Your task to perform on an android device: turn off notifications settings in the gmail app Image 0: 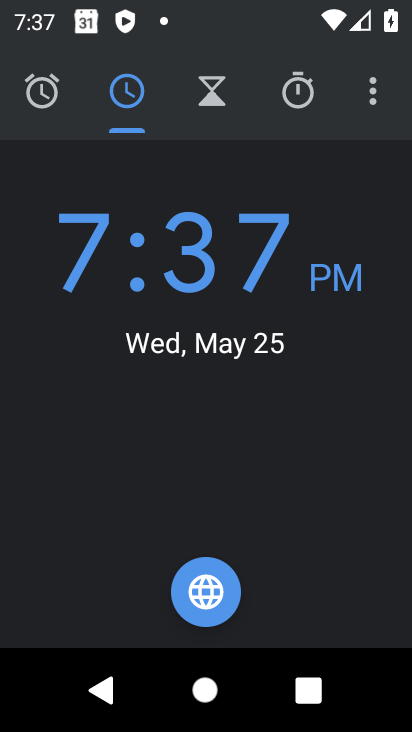
Step 0: press home button
Your task to perform on an android device: turn off notifications settings in the gmail app Image 1: 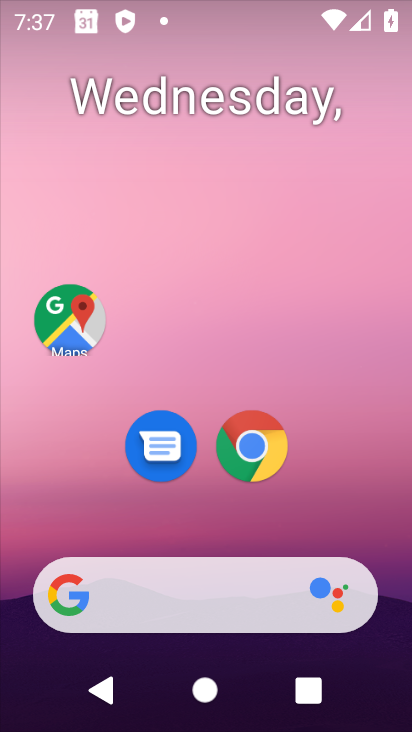
Step 1: drag from (384, 544) to (375, 33)
Your task to perform on an android device: turn off notifications settings in the gmail app Image 2: 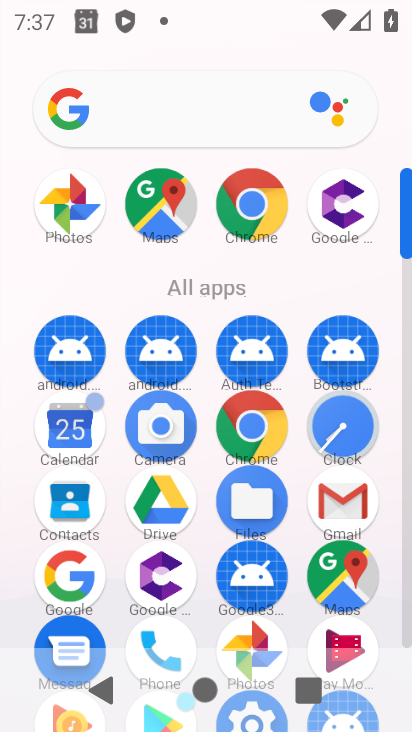
Step 2: click (362, 503)
Your task to perform on an android device: turn off notifications settings in the gmail app Image 3: 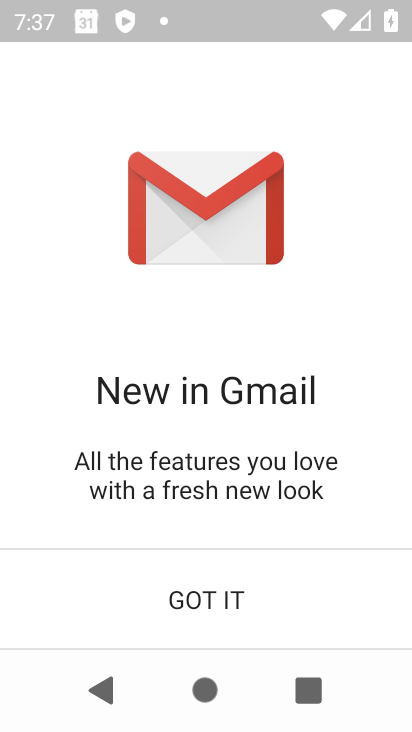
Step 3: click (222, 625)
Your task to perform on an android device: turn off notifications settings in the gmail app Image 4: 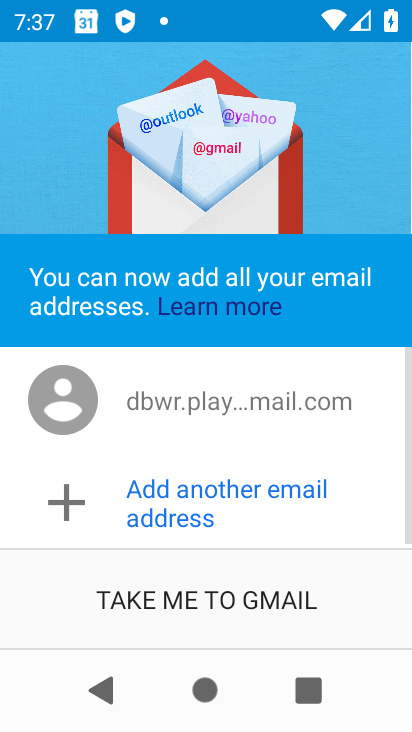
Step 4: click (222, 625)
Your task to perform on an android device: turn off notifications settings in the gmail app Image 5: 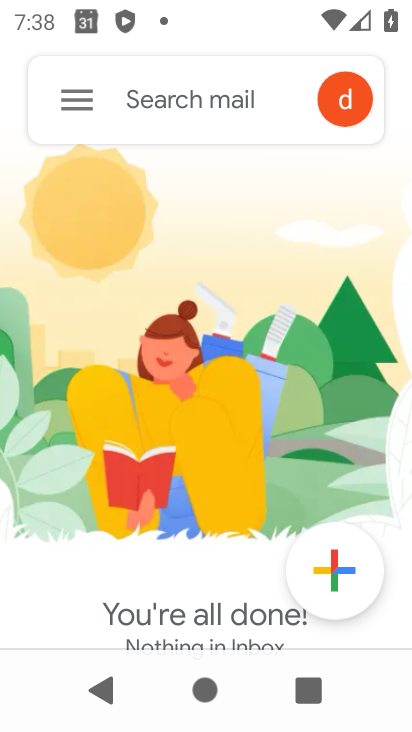
Step 5: click (66, 105)
Your task to perform on an android device: turn off notifications settings in the gmail app Image 6: 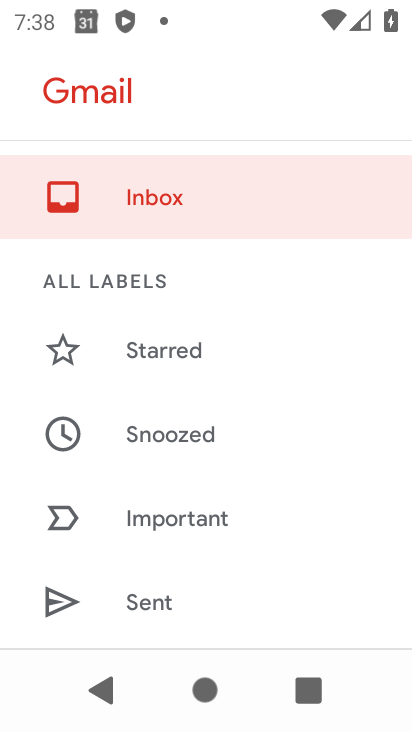
Step 6: drag from (186, 571) to (197, 164)
Your task to perform on an android device: turn off notifications settings in the gmail app Image 7: 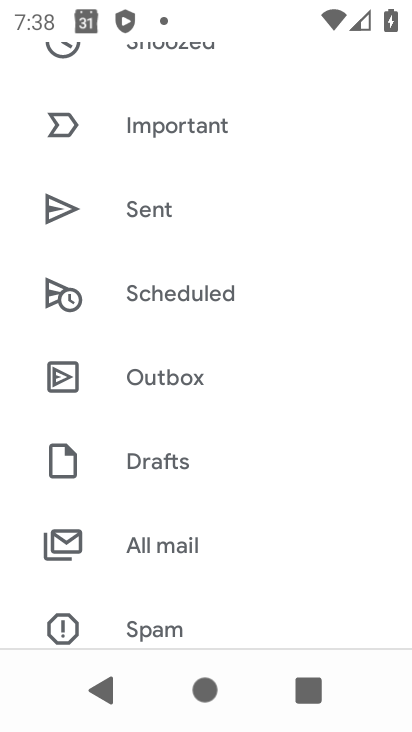
Step 7: drag from (226, 546) to (252, 104)
Your task to perform on an android device: turn off notifications settings in the gmail app Image 8: 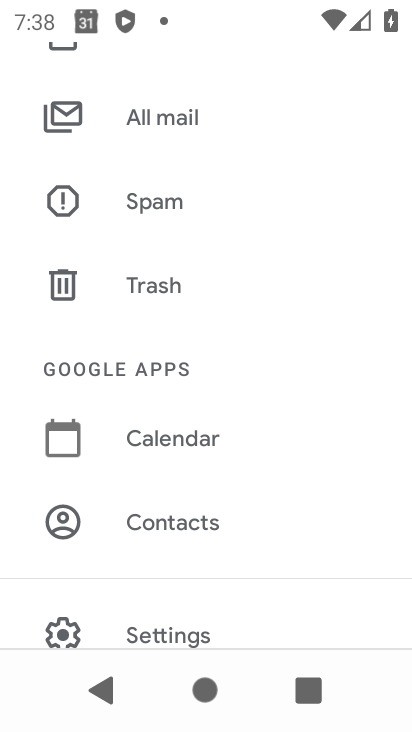
Step 8: click (171, 627)
Your task to perform on an android device: turn off notifications settings in the gmail app Image 9: 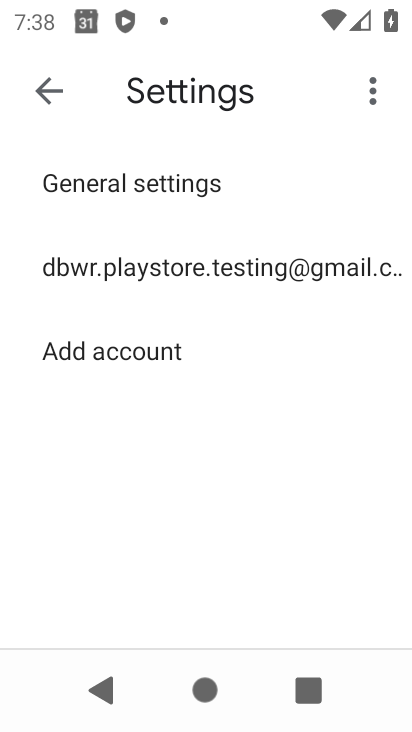
Step 9: click (124, 279)
Your task to perform on an android device: turn off notifications settings in the gmail app Image 10: 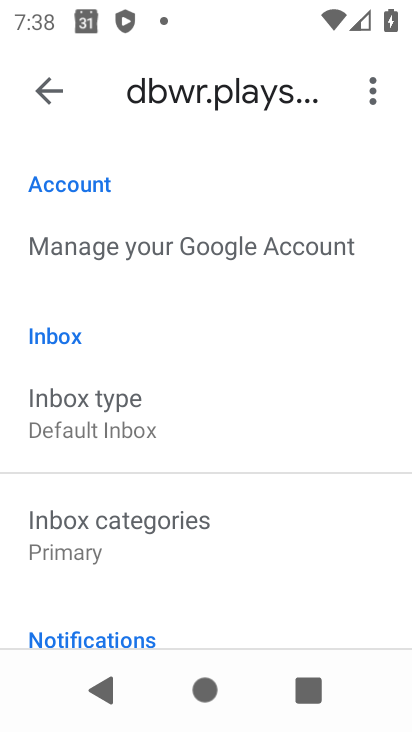
Step 10: drag from (146, 573) to (233, 181)
Your task to perform on an android device: turn off notifications settings in the gmail app Image 11: 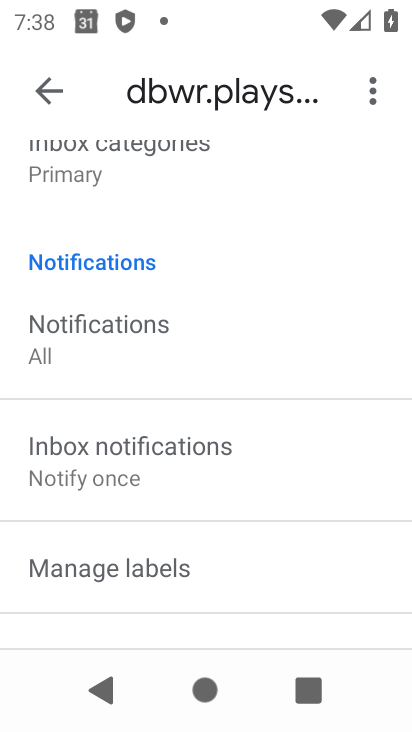
Step 11: click (104, 334)
Your task to perform on an android device: turn off notifications settings in the gmail app Image 12: 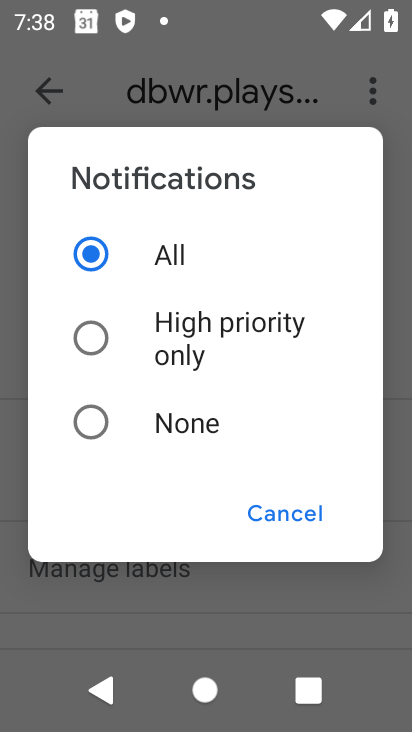
Step 12: click (98, 426)
Your task to perform on an android device: turn off notifications settings in the gmail app Image 13: 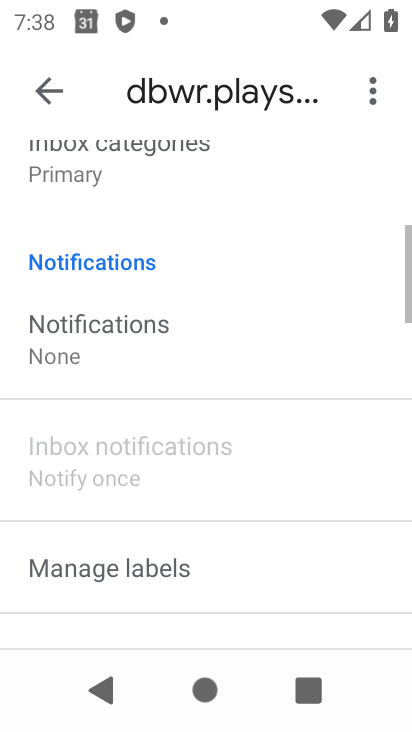
Step 13: task complete